Your task to perform on an android device: Find coffee shops on Maps Image 0: 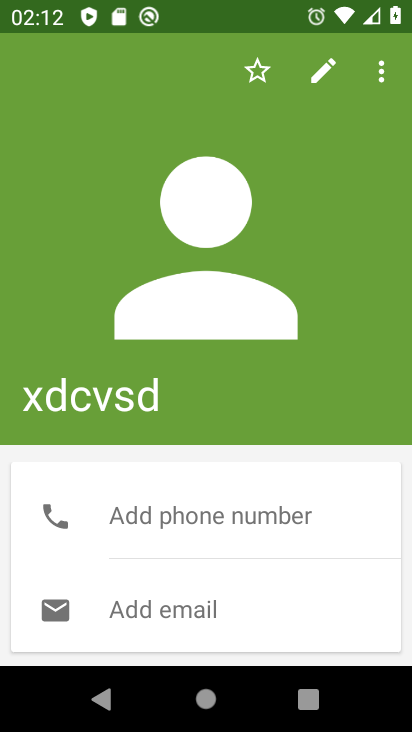
Step 0: press home button
Your task to perform on an android device: Find coffee shops on Maps Image 1: 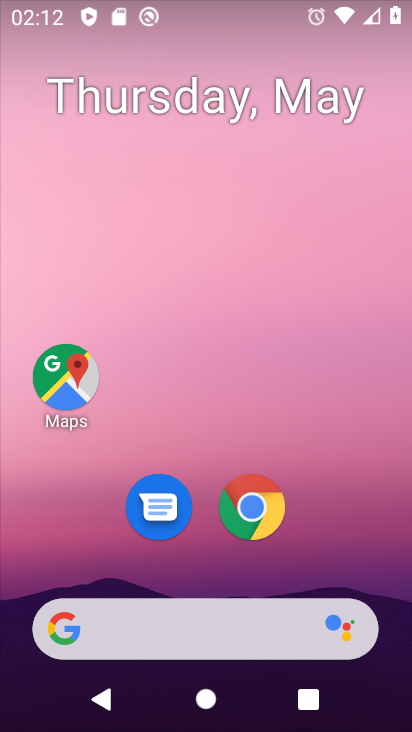
Step 1: click (45, 372)
Your task to perform on an android device: Find coffee shops on Maps Image 2: 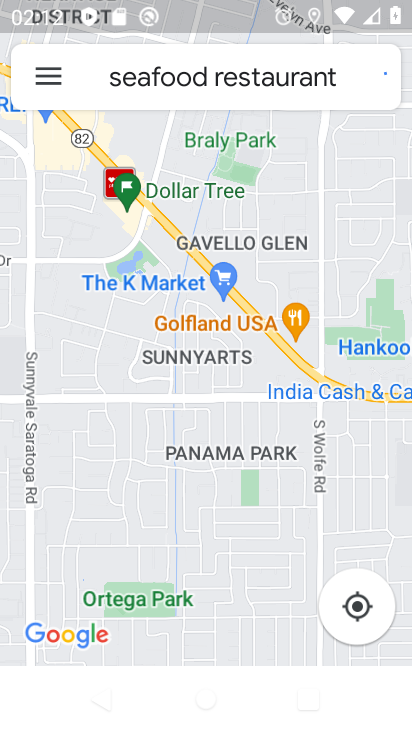
Step 2: click (224, 68)
Your task to perform on an android device: Find coffee shops on Maps Image 3: 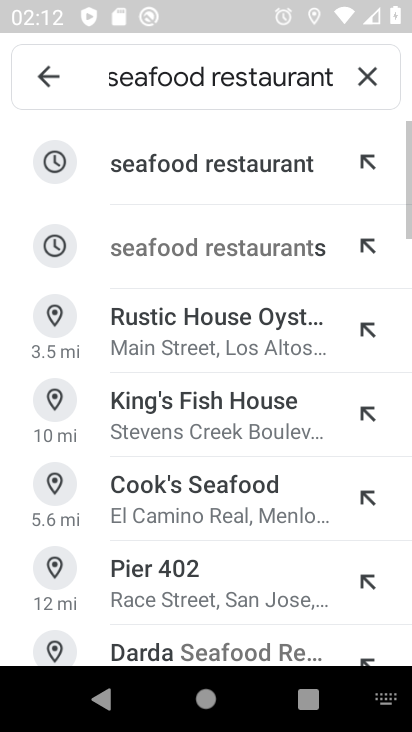
Step 3: click (363, 87)
Your task to perform on an android device: Find coffee shops on Maps Image 4: 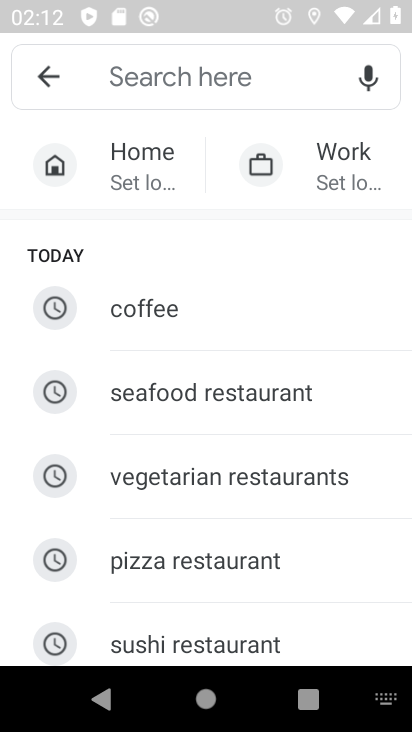
Step 4: click (267, 301)
Your task to perform on an android device: Find coffee shops on Maps Image 5: 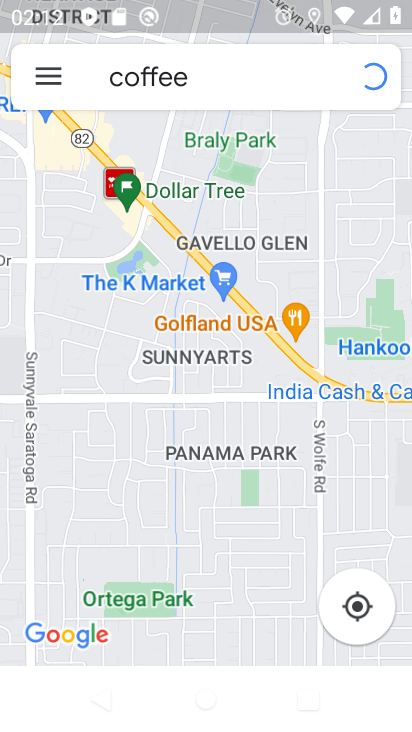
Step 5: task complete